Your task to perform on an android device: Open Chrome and go to settings Image 0: 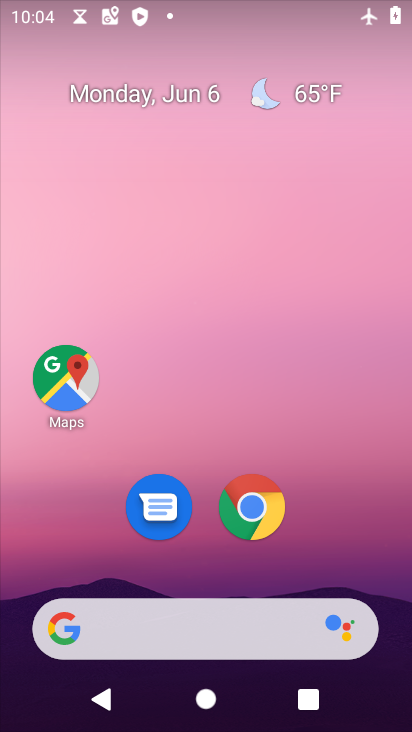
Step 0: click (260, 499)
Your task to perform on an android device: Open Chrome and go to settings Image 1: 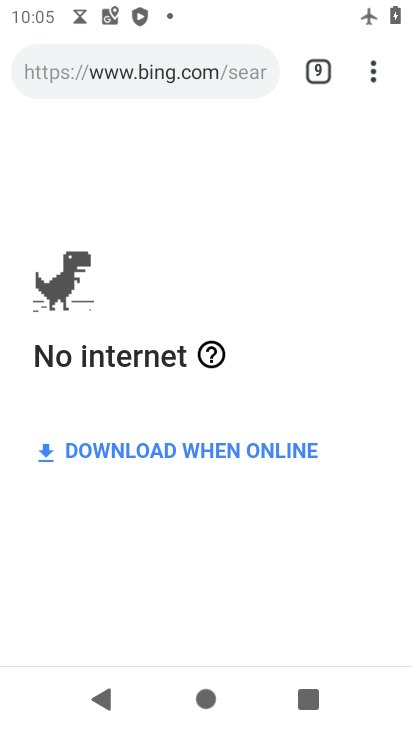
Step 1: click (373, 69)
Your task to perform on an android device: Open Chrome and go to settings Image 2: 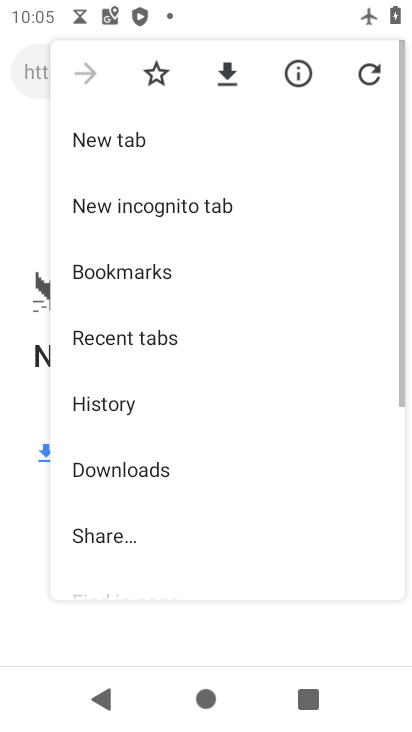
Step 2: drag from (150, 534) to (185, 266)
Your task to perform on an android device: Open Chrome and go to settings Image 3: 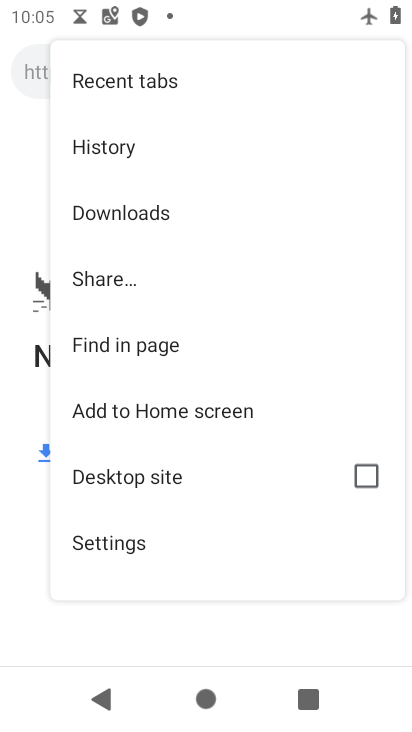
Step 3: click (141, 536)
Your task to perform on an android device: Open Chrome and go to settings Image 4: 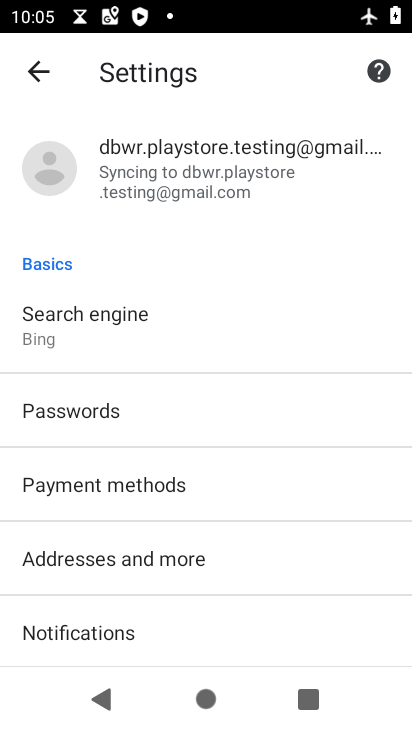
Step 4: task complete